Your task to perform on an android device: turn vacation reply on in the gmail app Image 0: 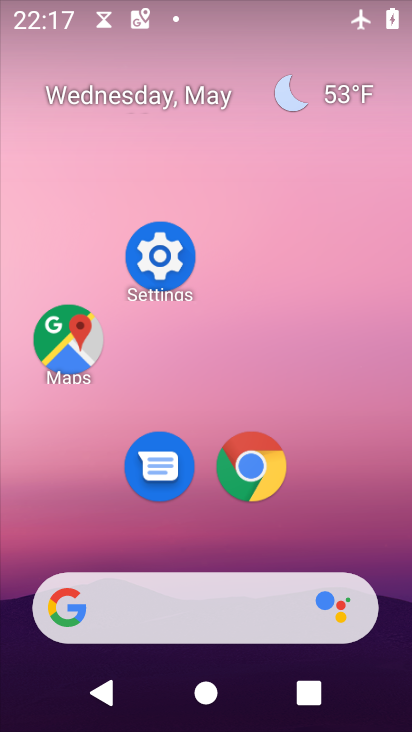
Step 0: drag from (211, 468) to (257, 101)
Your task to perform on an android device: turn vacation reply on in the gmail app Image 1: 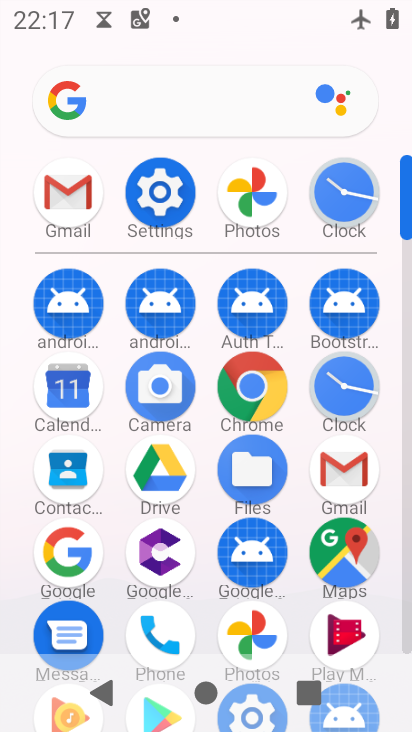
Step 1: click (331, 466)
Your task to perform on an android device: turn vacation reply on in the gmail app Image 2: 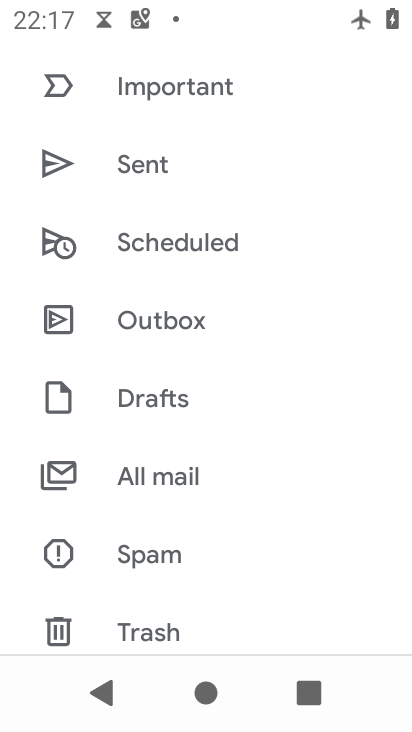
Step 2: drag from (218, 270) to (281, 713)
Your task to perform on an android device: turn vacation reply on in the gmail app Image 3: 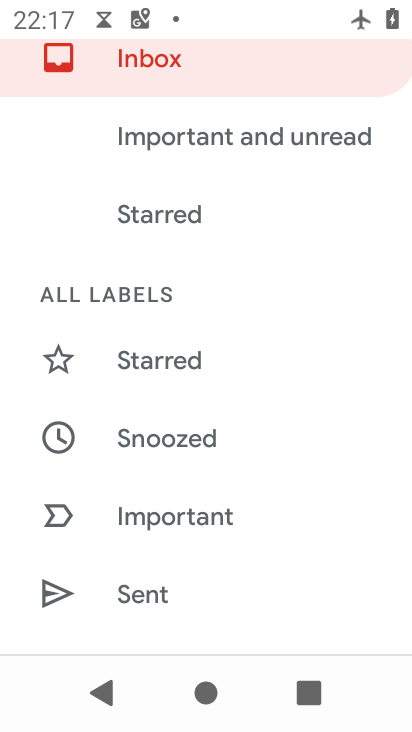
Step 3: drag from (239, 556) to (260, 126)
Your task to perform on an android device: turn vacation reply on in the gmail app Image 4: 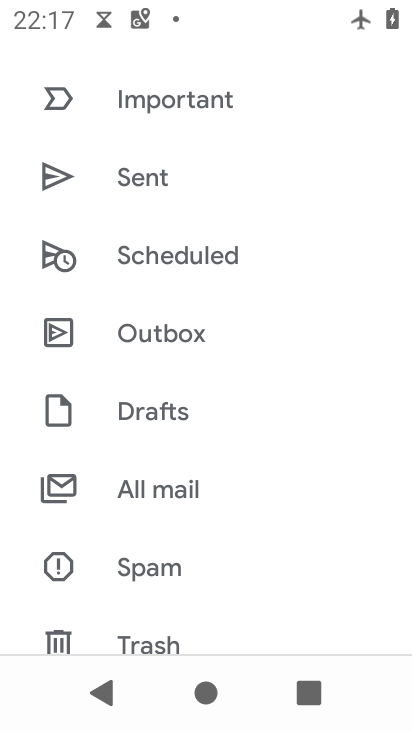
Step 4: drag from (199, 596) to (215, 204)
Your task to perform on an android device: turn vacation reply on in the gmail app Image 5: 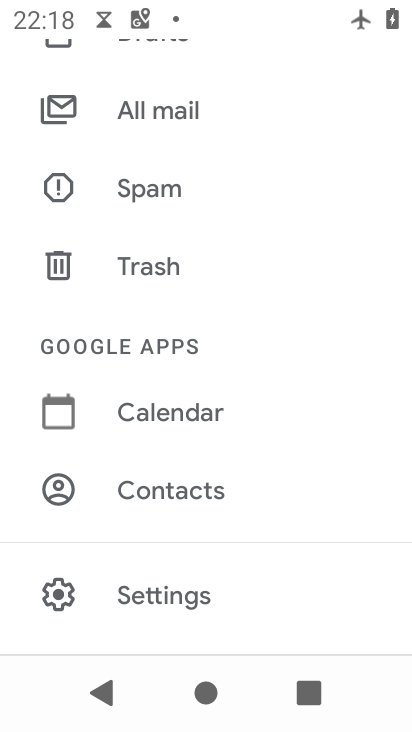
Step 5: click (208, 600)
Your task to perform on an android device: turn vacation reply on in the gmail app Image 6: 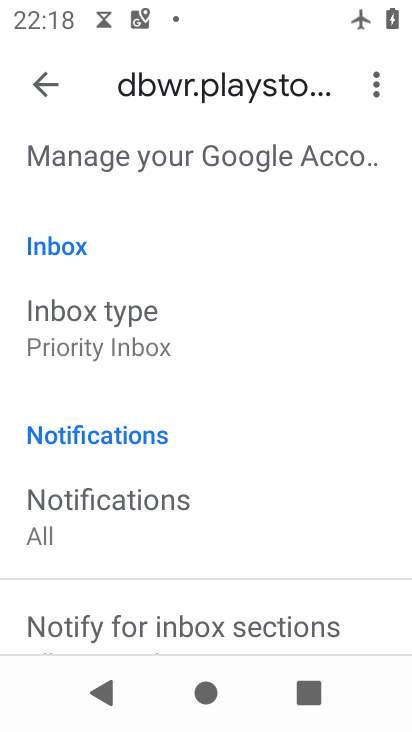
Step 6: drag from (224, 538) to (263, 256)
Your task to perform on an android device: turn vacation reply on in the gmail app Image 7: 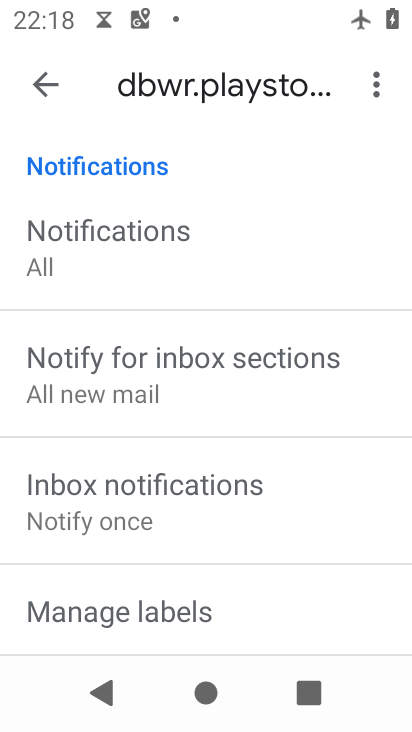
Step 7: drag from (187, 555) to (198, 259)
Your task to perform on an android device: turn vacation reply on in the gmail app Image 8: 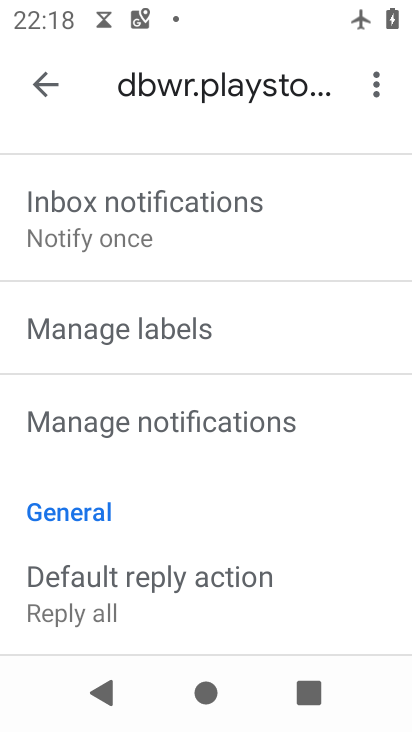
Step 8: drag from (193, 566) to (264, 253)
Your task to perform on an android device: turn vacation reply on in the gmail app Image 9: 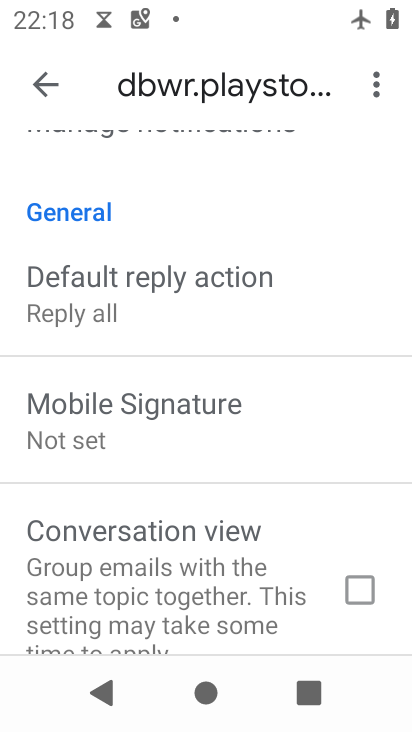
Step 9: drag from (239, 616) to (251, 209)
Your task to perform on an android device: turn vacation reply on in the gmail app Image 10: 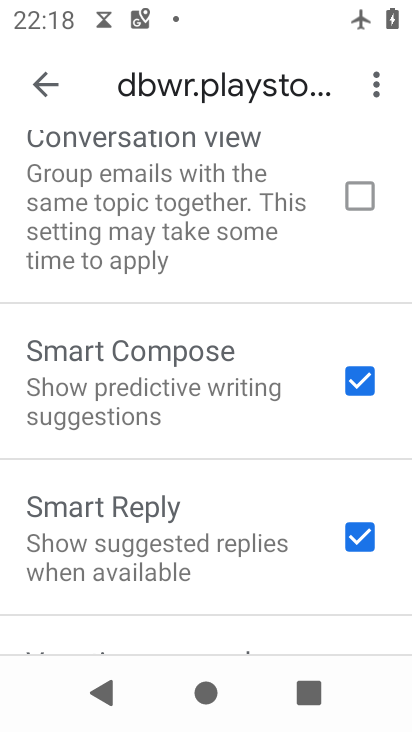
Step 10: click (267, 323)
Your task to perform on an android device: turn vacation reply on in the gmail app Image 11: 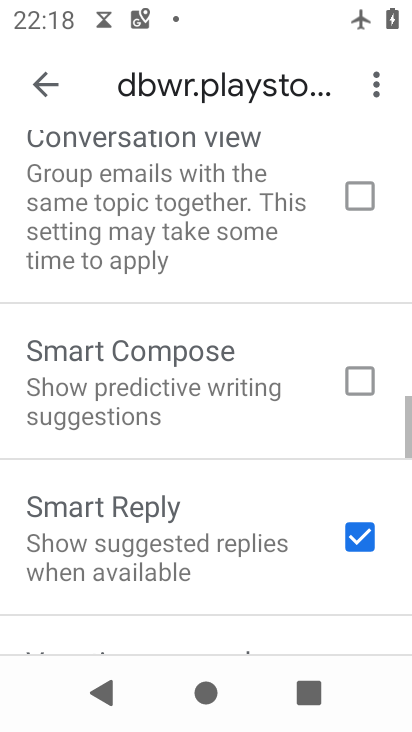
Step 11: drag from (217, 319) to (218, 285)
Your task to perform on an android device: turn vacation reply on in the gmail app Image 12: 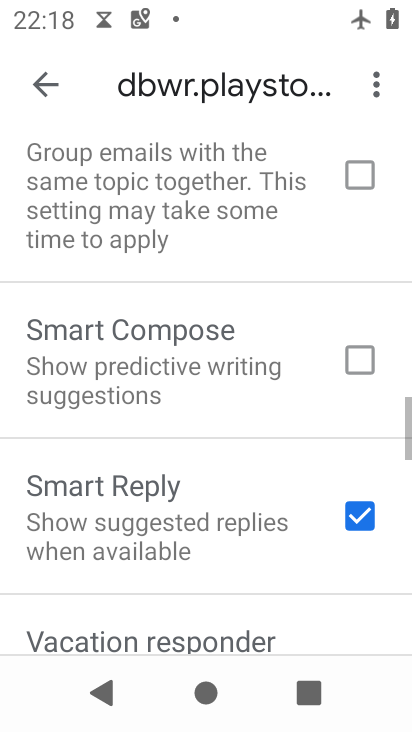
Step 12: click (215, 296)
Your task to perform on an android device: turn vacation reply on in the gmail app Image 13: 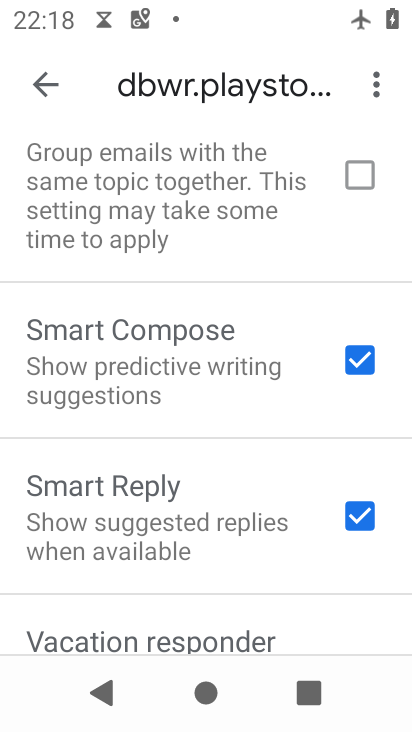
Step 13: click (151, 635)
Your task to perform on an android device: turn vacation reply on in the gmail app Image 14: 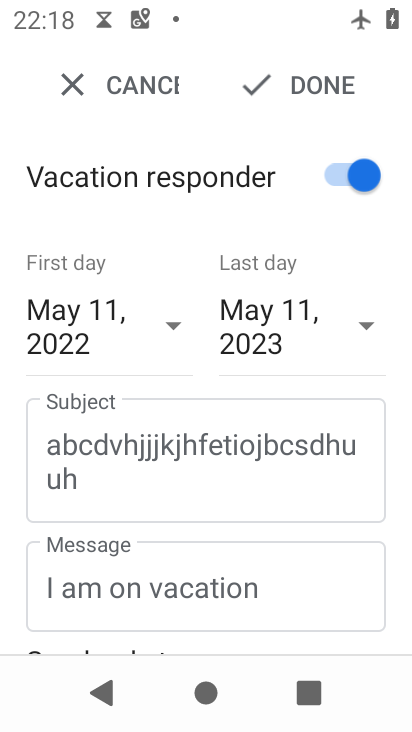
Step 14: click (316, 98)
Your task to perform on an android device: turn vacation reply on in the gmail app Image 15: 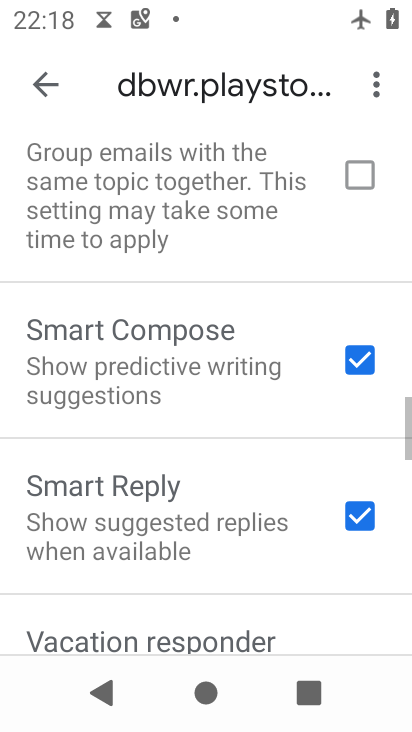
Step 15: task complete